Your task to perform on an android device: uninstall "Google Duo" Image 0: 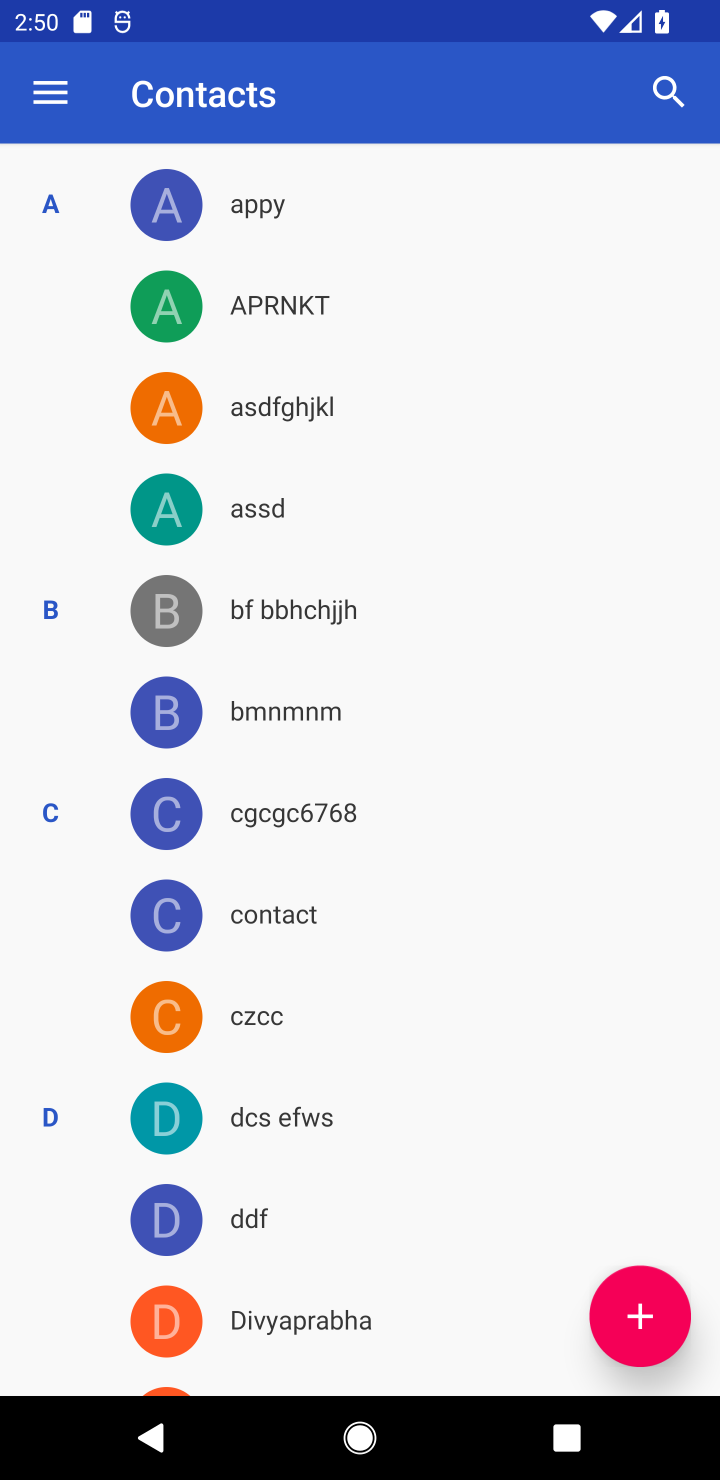
Step 0: press home button
Your task to perform on an android device: uninstall "Google Duo" Image 1: 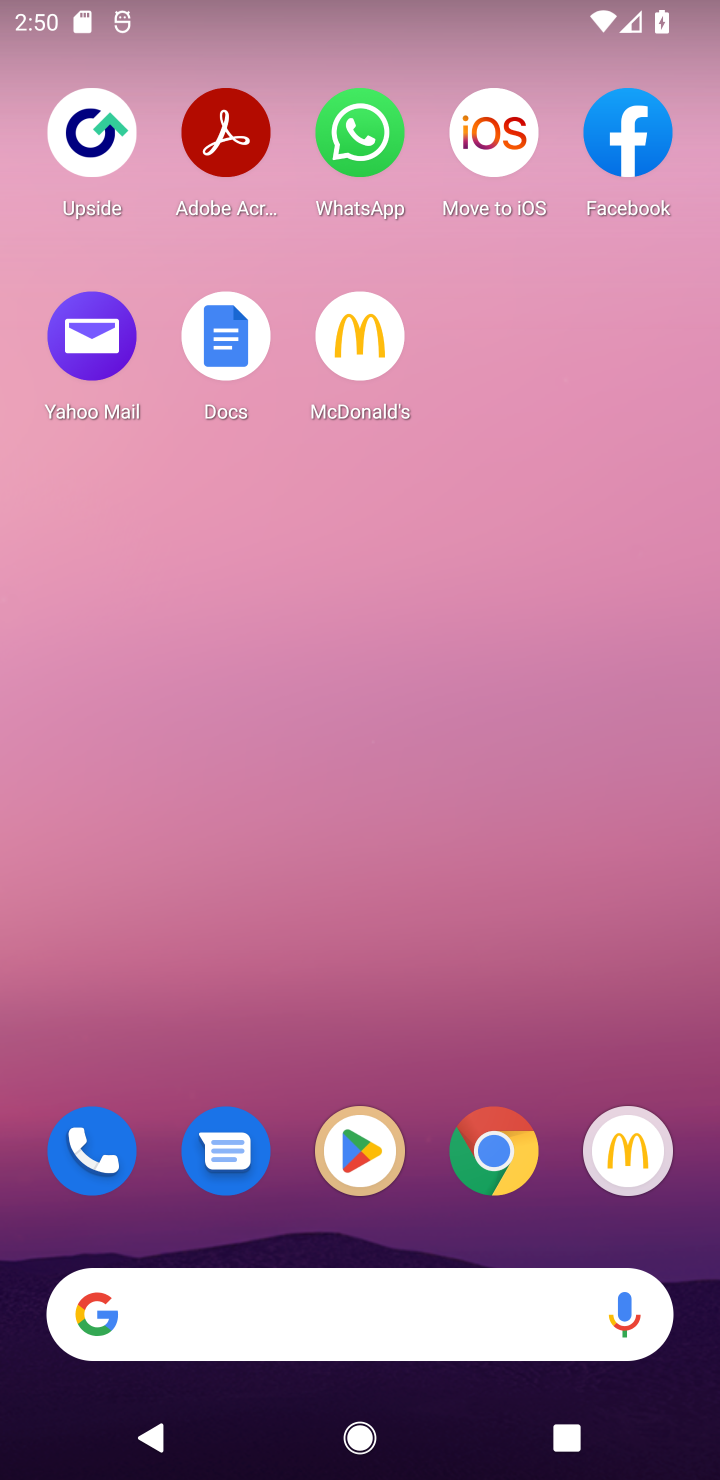
Step 1: click (350, 1134)
Your task to perform on an android device: uninstall "Google Duo" Image 2: 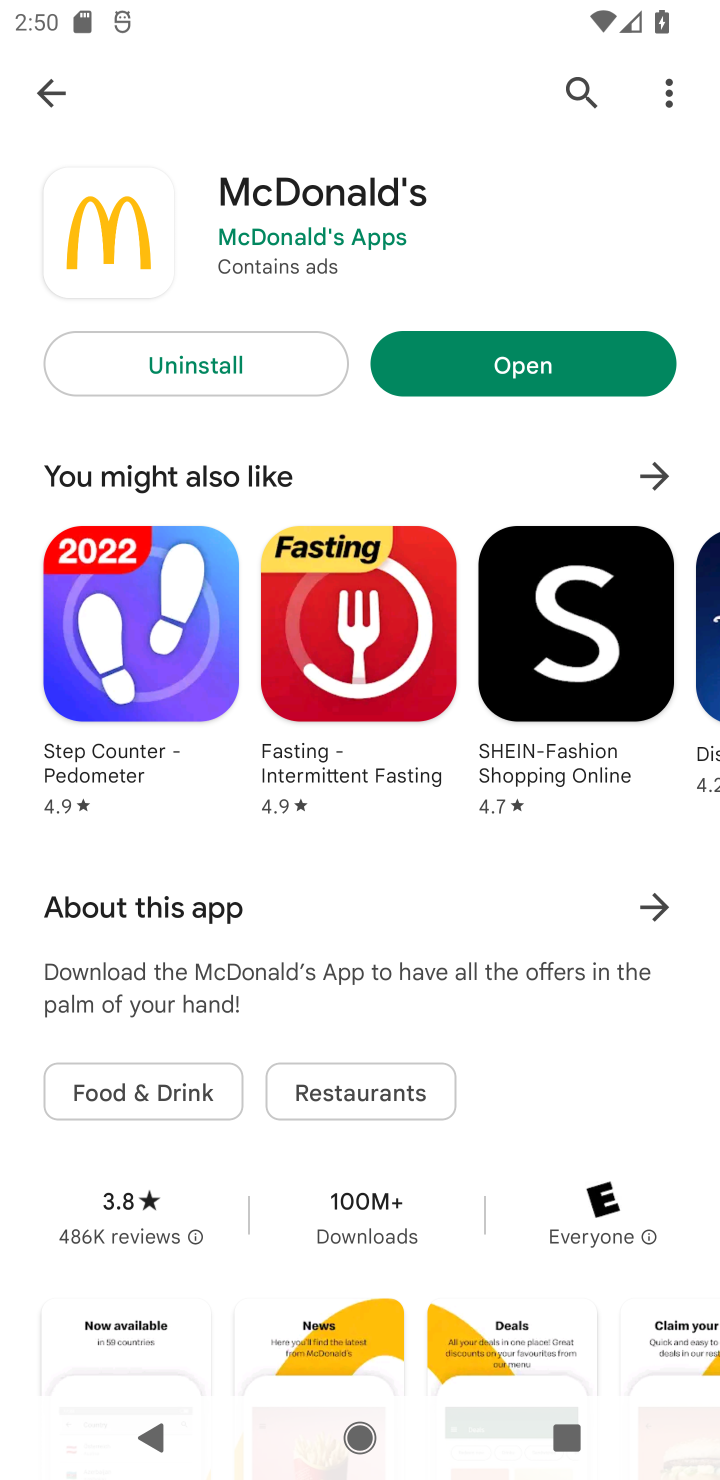
Step 2: click (572, 104)
Your task to perform on an android device: uninstall "Google Duo" Image 3: 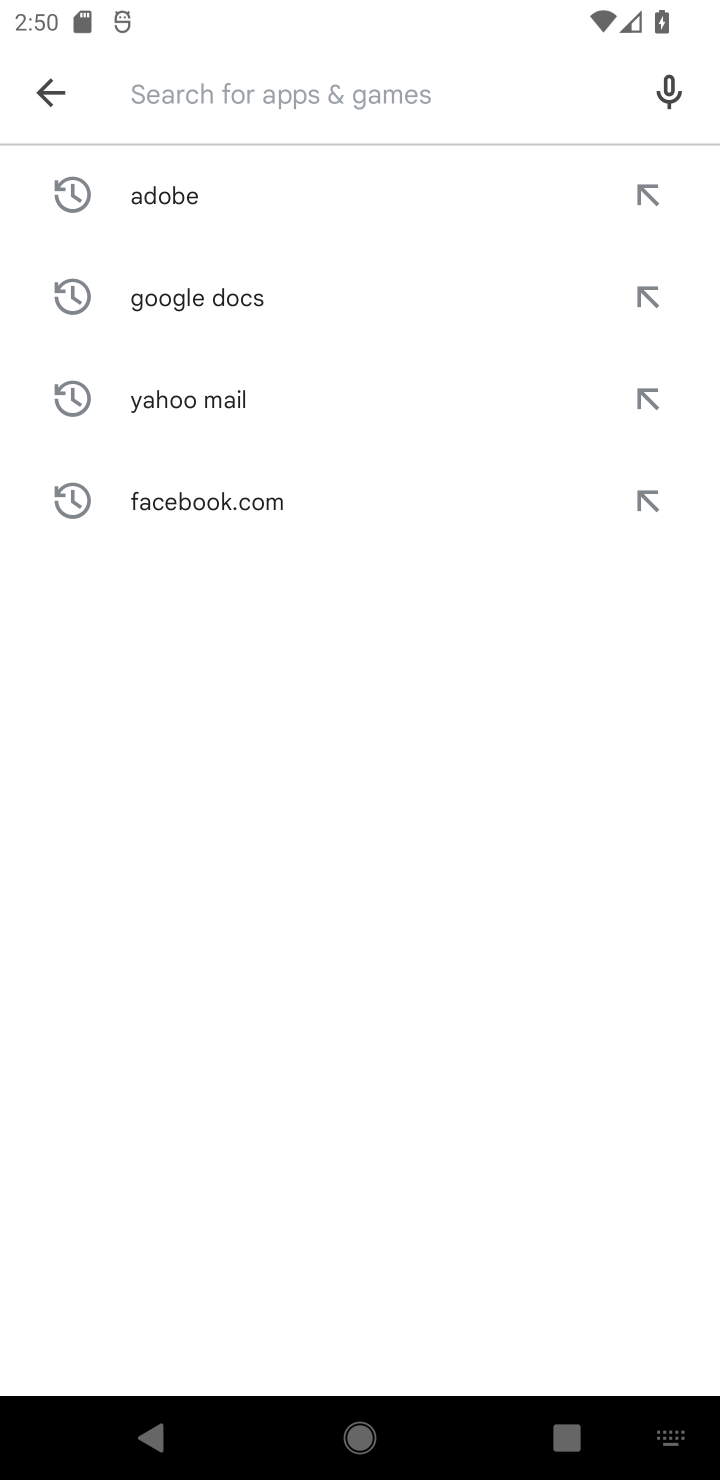
Step 3: type "google duo"
Your task to perform on an android device: uninstall "Google Duo" Image 4: 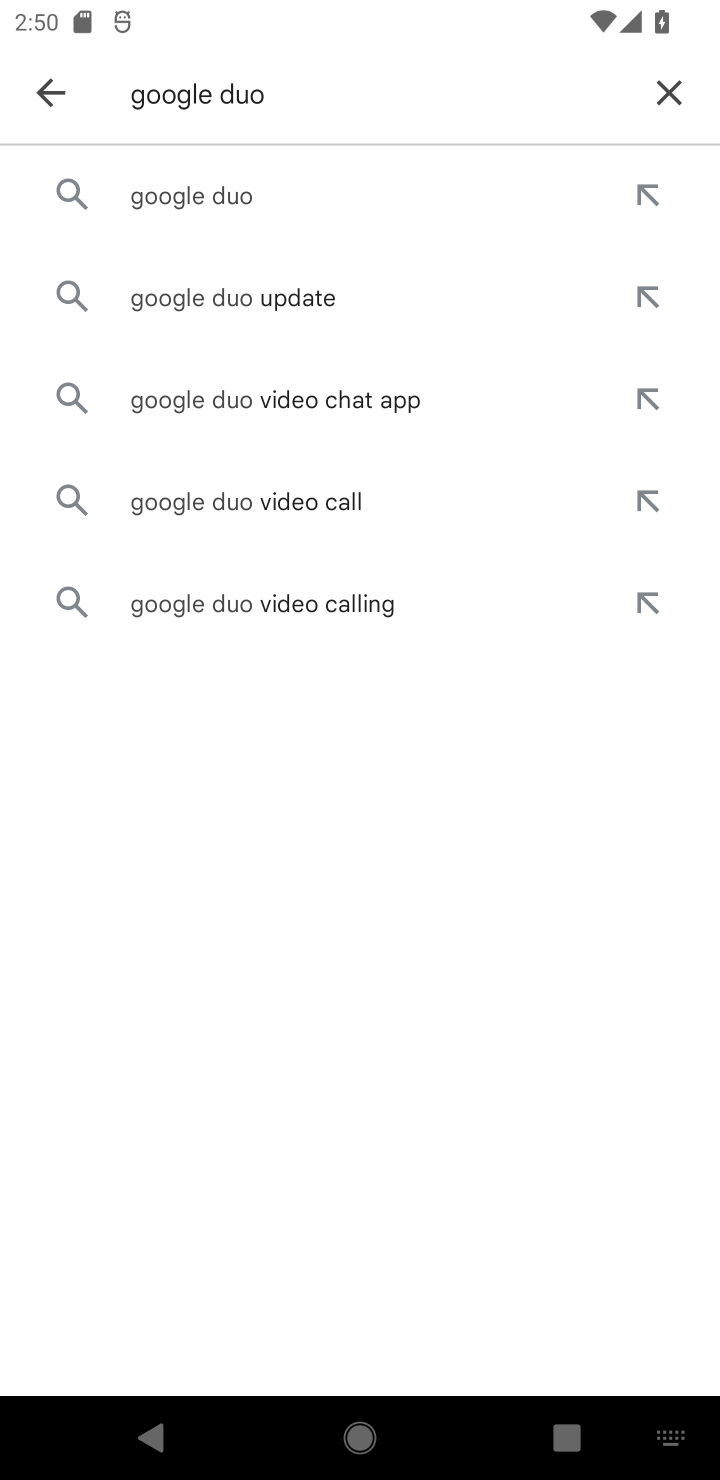
Step 4: click (275, 202)
Your task to perform on an android device: uninstall "Google Duo" Image 5: 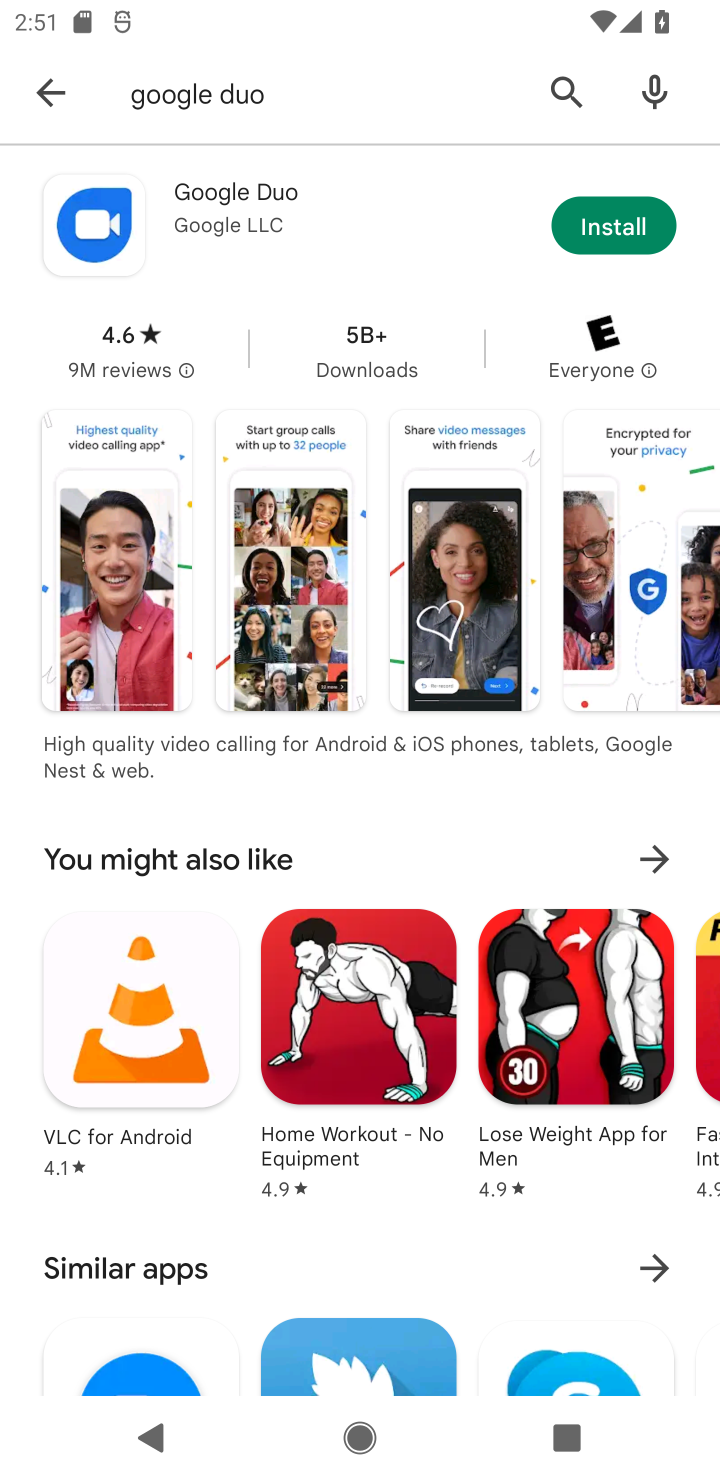
Step 5: click (623, 246)
Your task to perform on an android device: uninstall "Google Duo" Image 6: 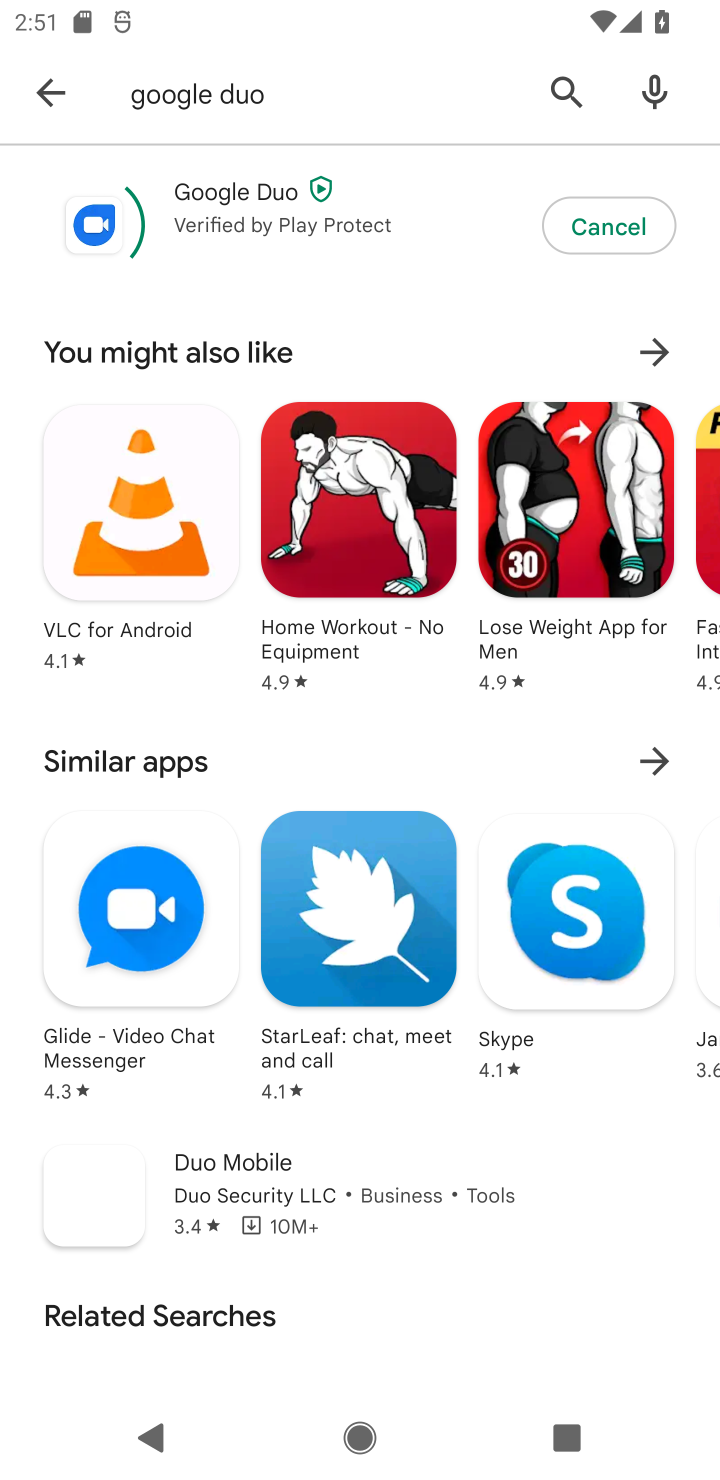
Step 6: task complete